Your task to perform on an android device: find snoozed emails in the gmail app Image 0: 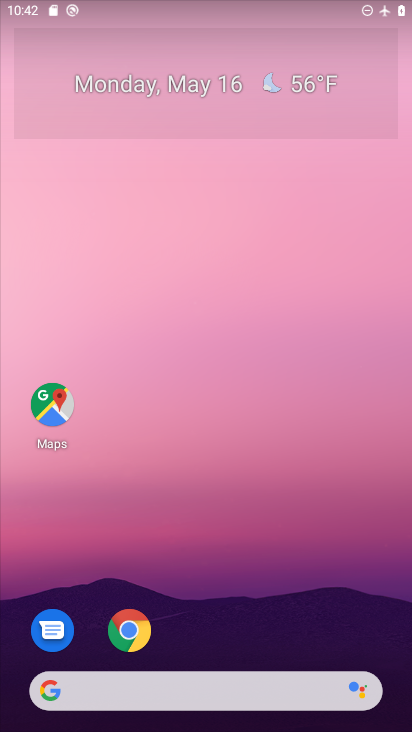
Step 0: drag from (275, 605) to (232, 43)
Your task to perform on an android device: find snoozed emails in the gmail app Image 1: 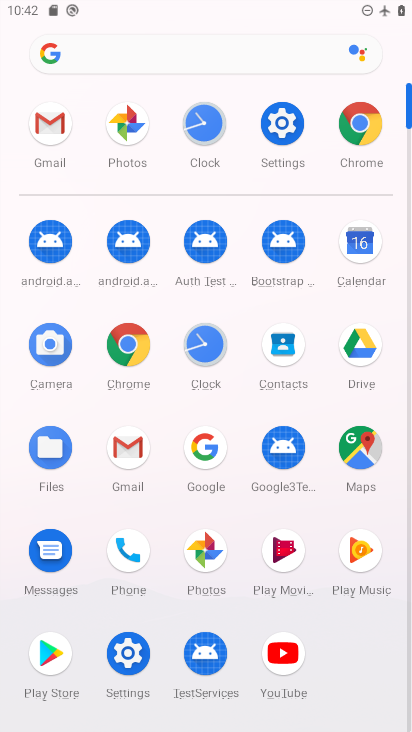
Step 1: click (51, 117)
Your task to perform on an android device: find snoozed emails in the gmail app Image 2: 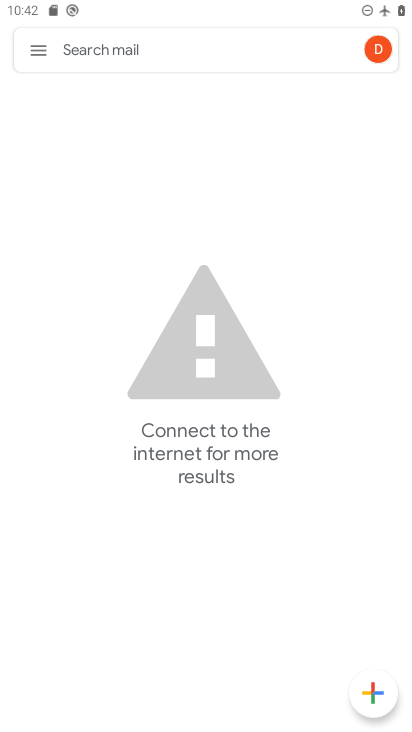
Step 2: click (36, 39)
Your task to perform on an android device: find snoozed emails in the gmail app Image 3: 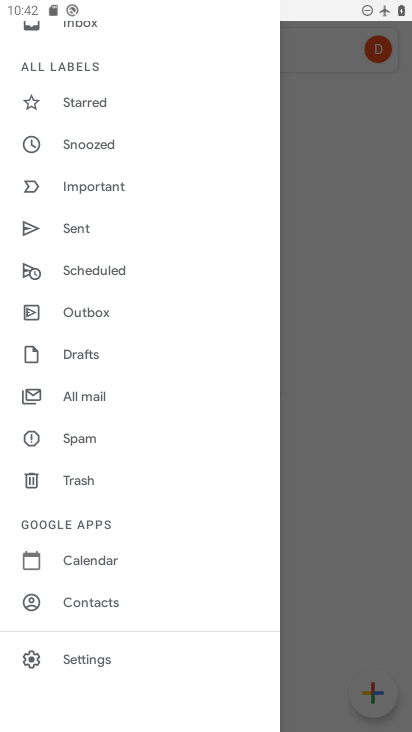
Step 3: click (90, 139)
Your task to perform on an android device: find snoozed emails in the gmail app Image 4: 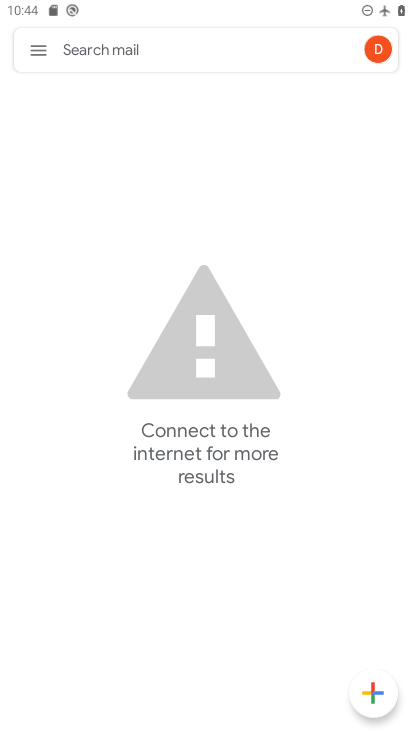
Step 4: task complete